Your task to perform on an android device: turn on javascript in the chrome app Image 0: 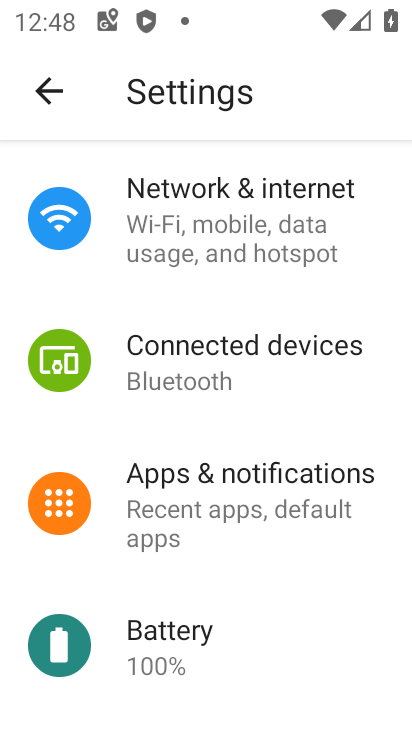
Step 0: press home button
Your task to perform on an android device: turn on javascript in the chrome app Image 1: 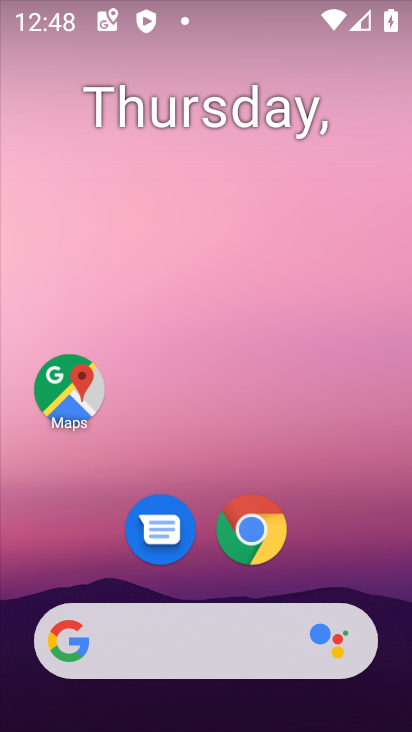
Step 1: click (256, 524)
Your task to perform on an android device: turn on javascript in the chrome app Image 2: 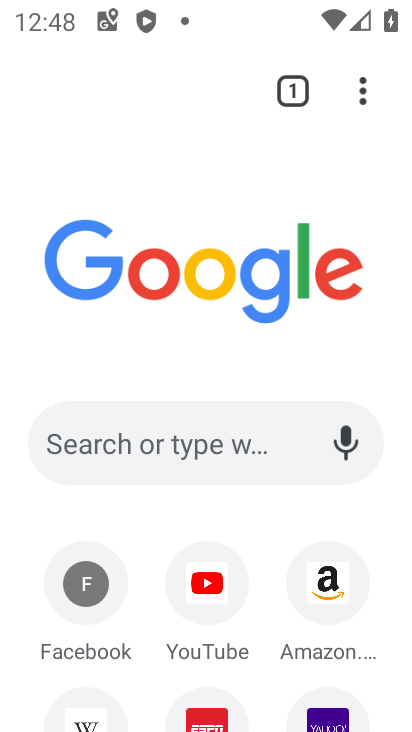
Step 2: drag from (362, 90) to (155, 555)
Your task to perform on an android device: turn on javascript in the chrome app Image 3: 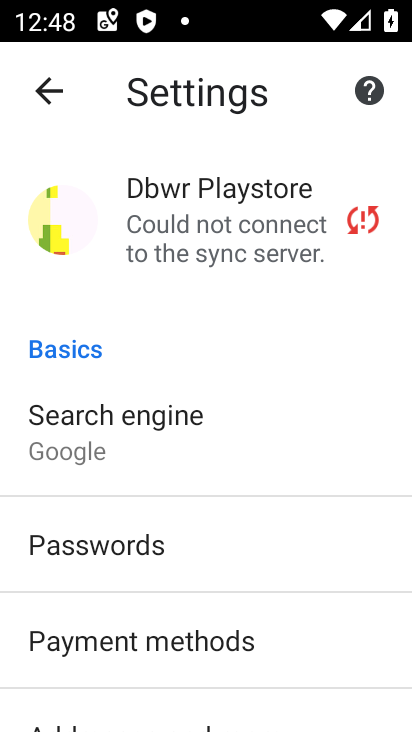
Step 3: drag from (123, 673) to (139, 318)
Your task to perform on an android device: turn on javascript in the chrome app Image 4: 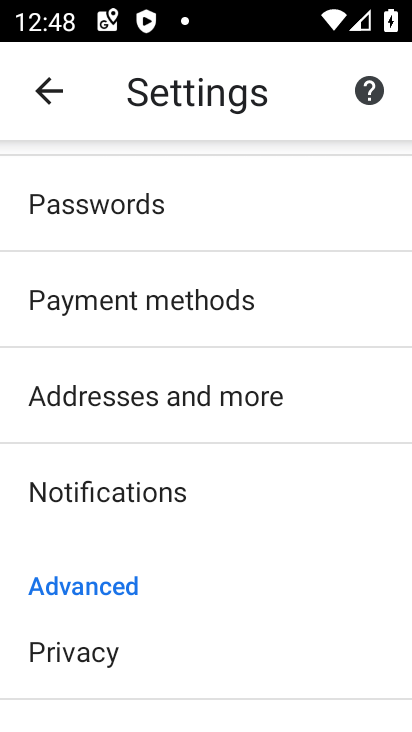
Step 4: drag from (144, 676) to (174, 293)
Your task to perform on an android device: turn on javascript in the chrome app Image 5: 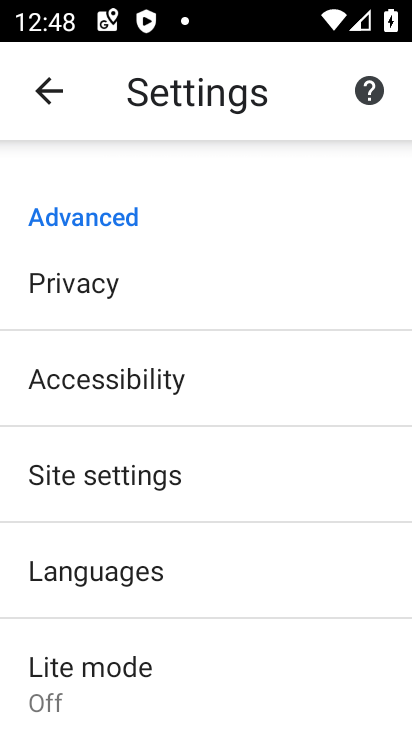
Step 5: click (112, 471)
Your task to perform on an android device: turn on javascript in the chrome app Image 6: 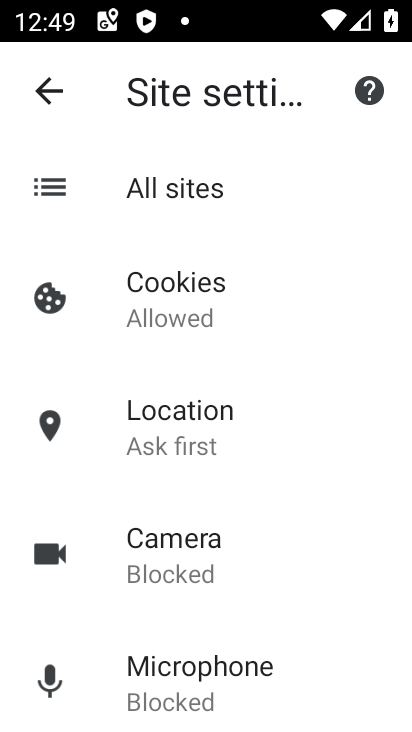
Step 6: drag from (199, 602) to (184, 226)
Your task to perform on an android device: turn on javascript in the chrome app Image 7: 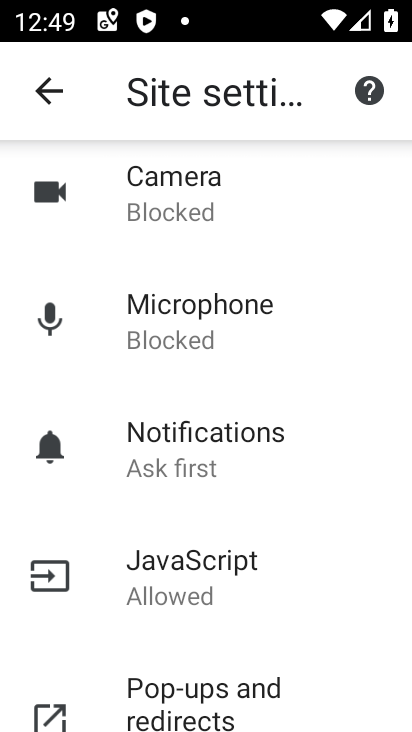
Step 7: click (198, 555)
Your task to perform on an android device: turn on javascript in the chrome app Image 8: 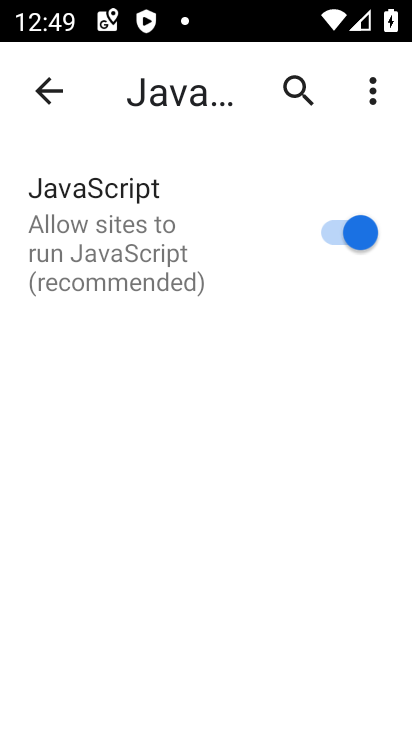
Step 8: task complete